Your task to perform on an android device: Clear the cart on costco. Add usb-c to usb-a to the cart on costco Image 0: 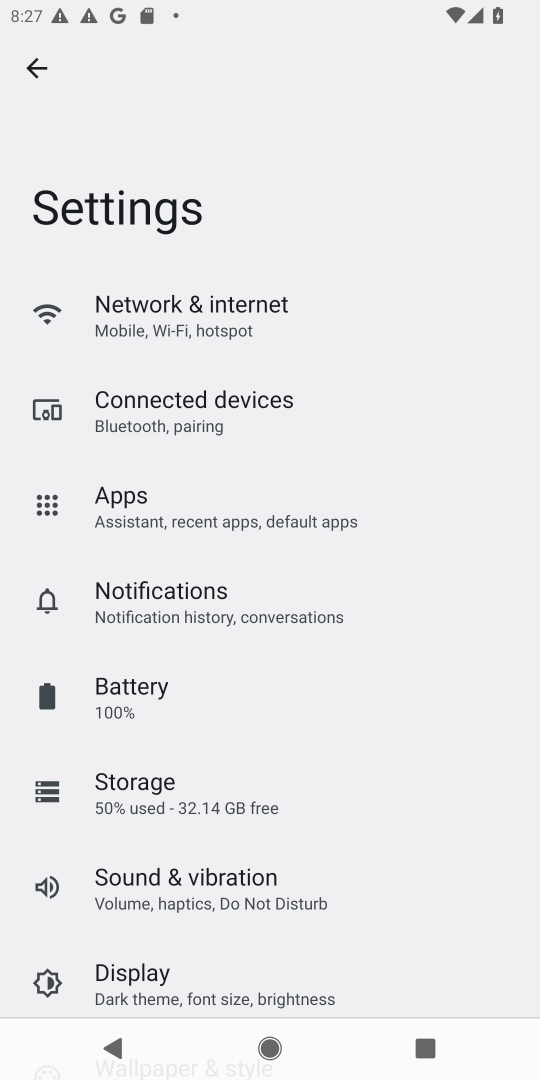
Step 0: press home button
Your task to perform on an android device: Clear the cart on costco. Add usb-c to usb-a to the cart on costco Image 1: 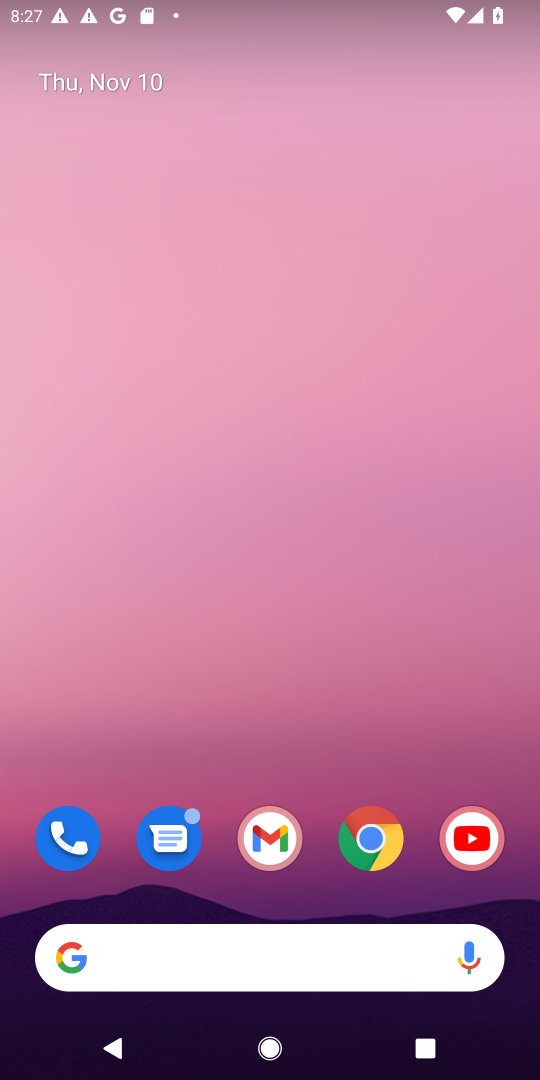
Step 1: drag from (318, 902) to (387, 24)
Your task to perform on an android device: Clear the cart on costco. Add usb-c to usb-a to the cart on costco Image 2: 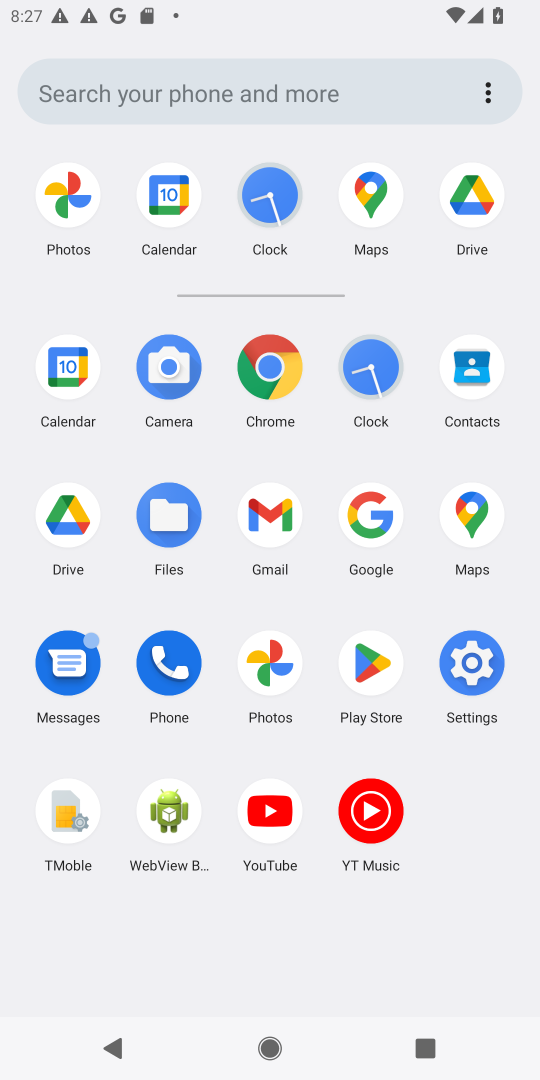
Step 2: click (270, 368)
Your task to perform on an android device: Clear the cart on costco. Add usb-c to usb-a to the cart on costco Image 3: 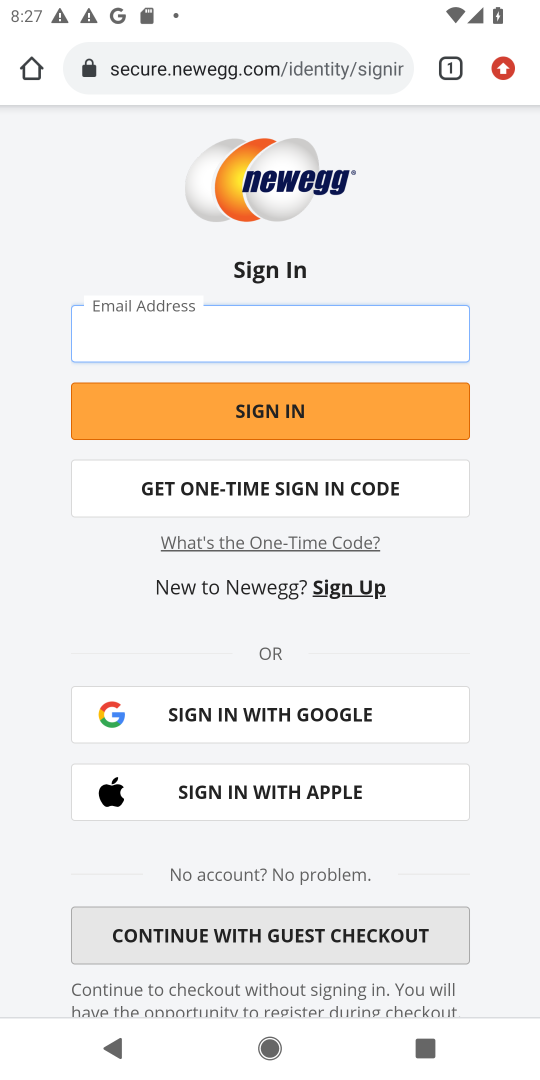
Step 3: click (321, 66)
Your task to perform on an android device: Clear the cart on costco. Add usb-c to usb-a to the cart on costco Image 4: 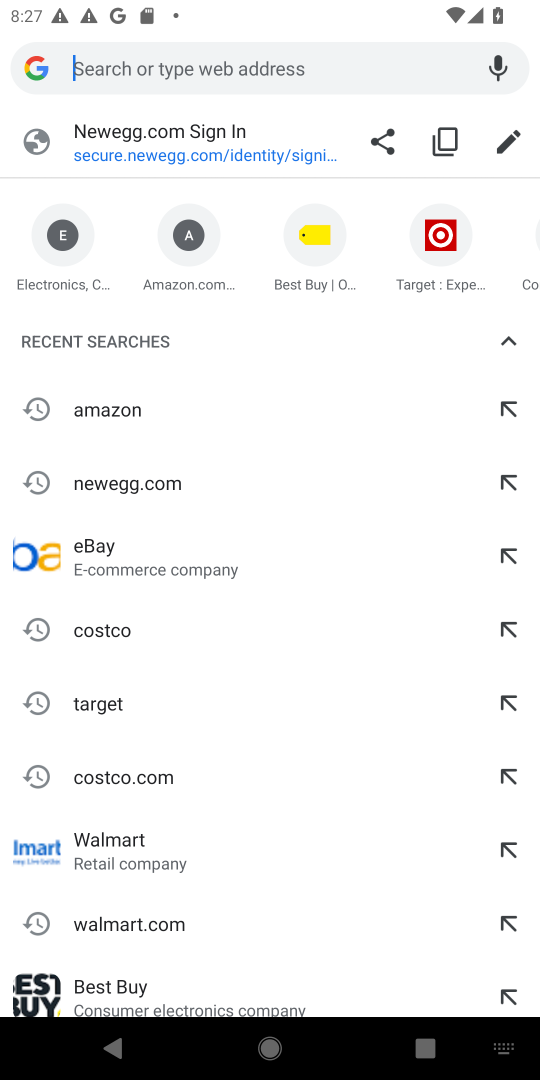
Step 4: type "costco.com"
Your task to perform on an android device: Clear the cart on costco. Add usb-c to usb-a to the cart on costco Image 5: 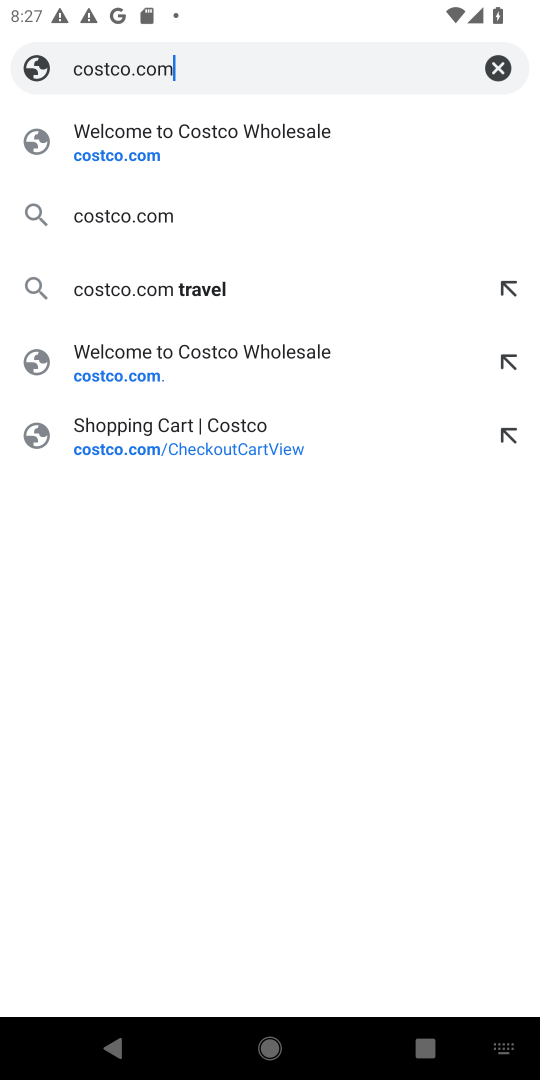
Step 5: press enter
Your task to perform on an android device: Clear the cart on costco. Add usb-c to usb-a to the cart on costco Image 6: 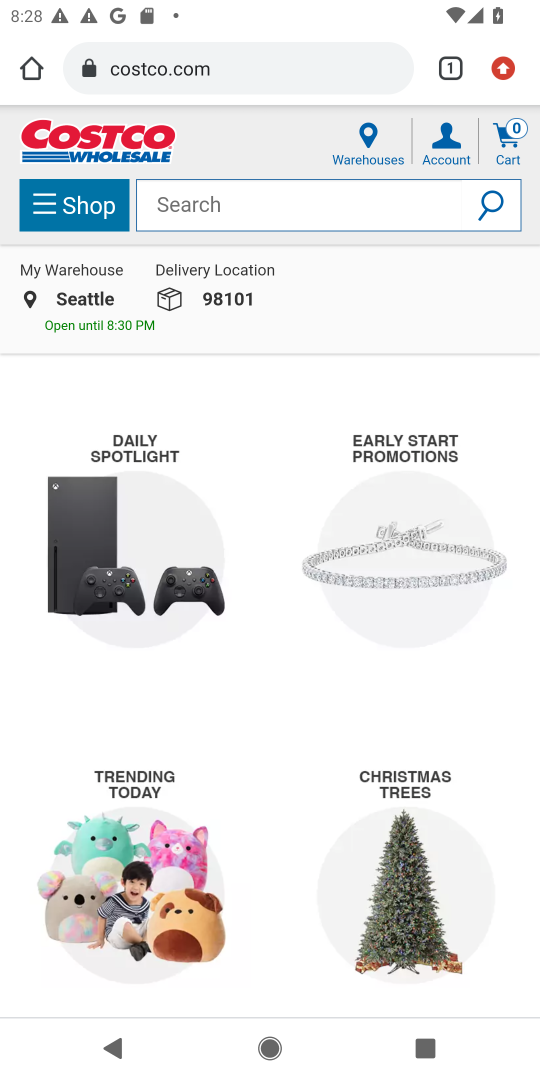
Step 6: click (501, 138)
Your task to perform on an android device: Clear the cart on costco. Add usb-c to usb-a to the cart on costco Image 7: 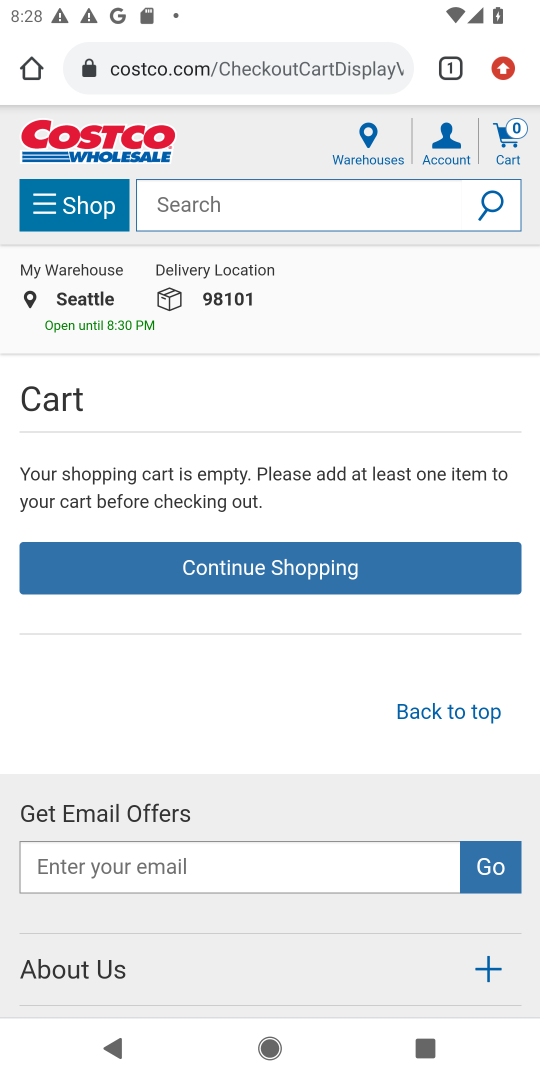
Step 7: click (274, 207)
Your task to perform on an android device: Clear the cart on costco. Add usb-c to usb-a to the cart on costco Image 8: 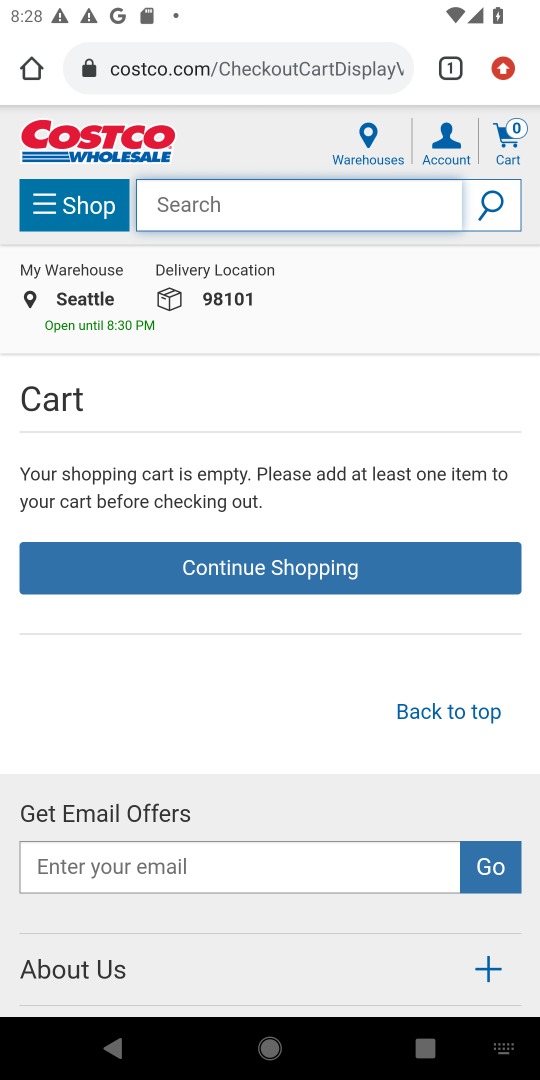
Step 8: type "usb-c to usb-a"
Your task to perform on an android device: Clear the cart on costco. Add usb-c to usb-a to the cart on costco Image 9: 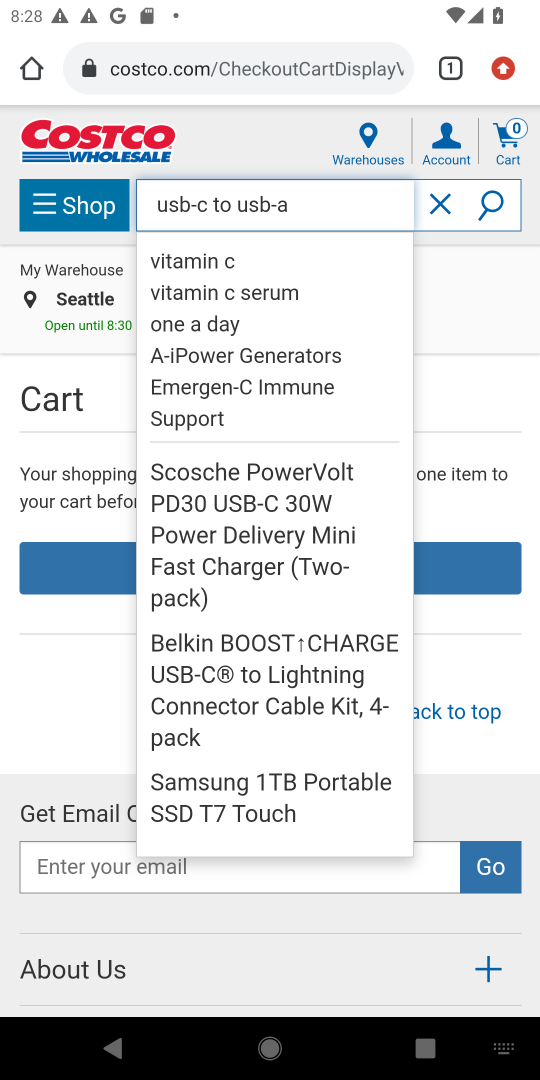
Step 9: press enter
Your task to perform on an android device: Clear the cart on costco. Add usb-c to usb-a to the cart on costco Image 10: 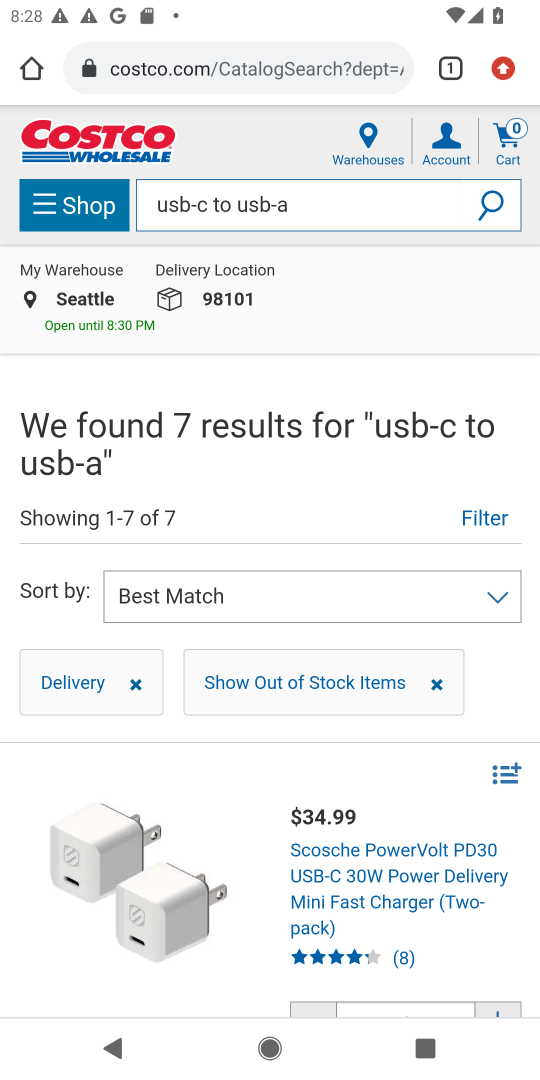
Step 10: drag from (415, 794) to (448, 248)
Your task to perform on an android device: Clear the cart on costco. Add usb-c to usb-a to the cart on costco Image 11: 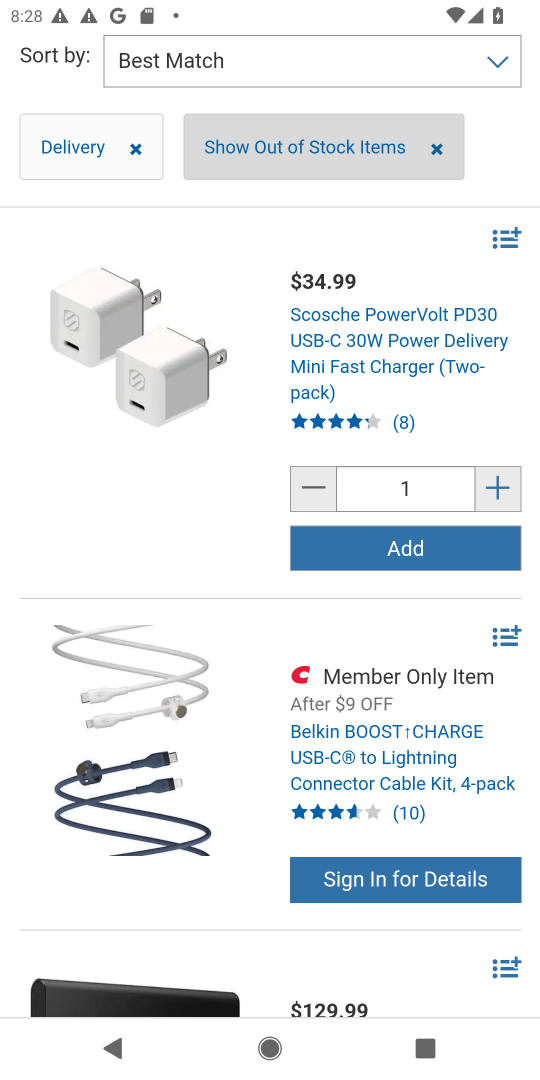
Step 11: drag from (256, 275) to (201, 181)
Your task to perform on an android device: Clear the cart on costco. Add usb-c to usb-a to the cart on costco Image 12: 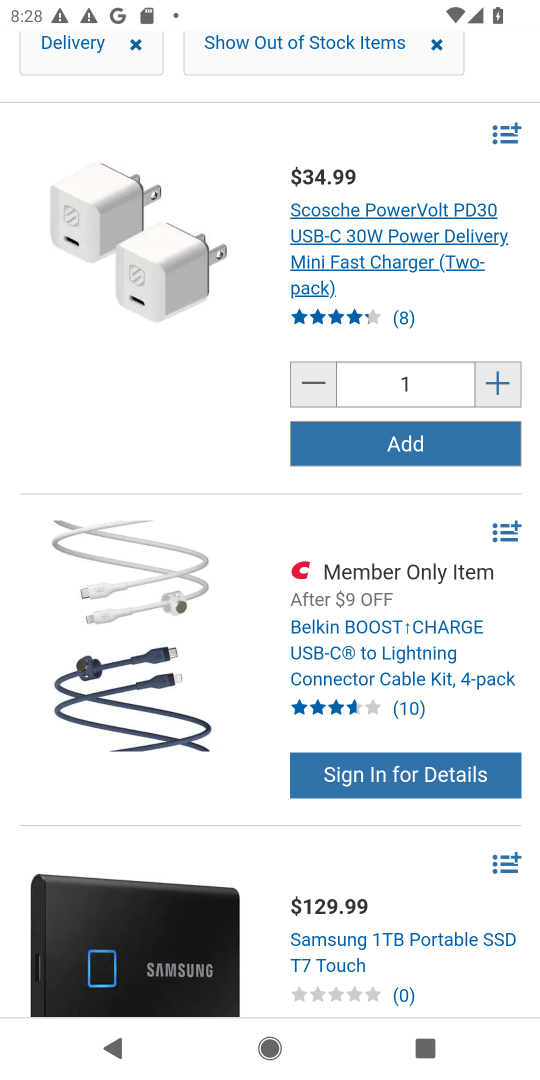
Step 12: drag from (171, 867) to (210, 789)
Your task to perform on an android device: Clear the cart on costco. Add usb-c to usb-a to the cart on costco Image 13: 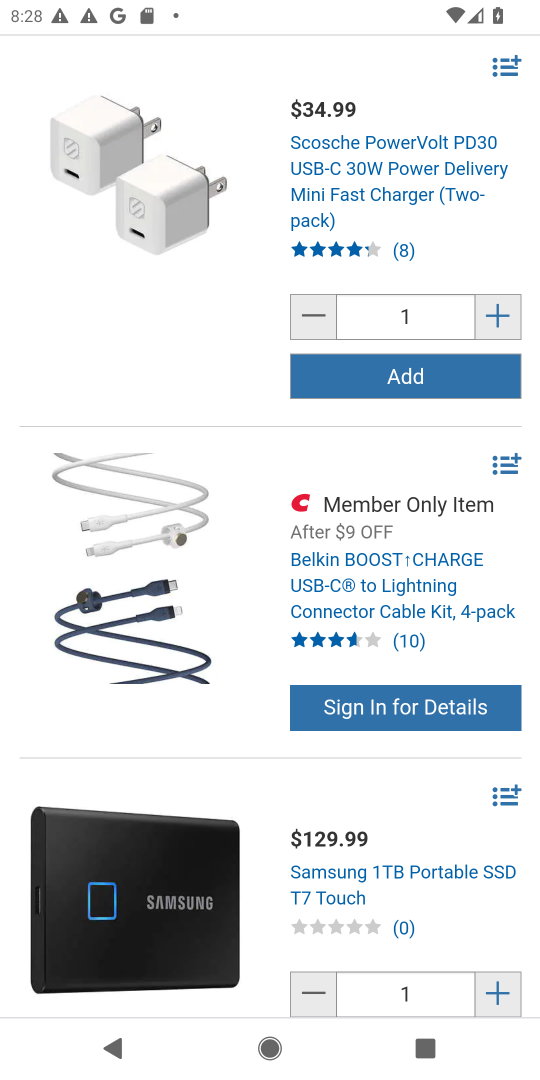
Step 13: click (362, 568)
Your task to perform on an android device: Clear the cart on costco. Add usb-c to usb-a to the cart on costco Image 14: 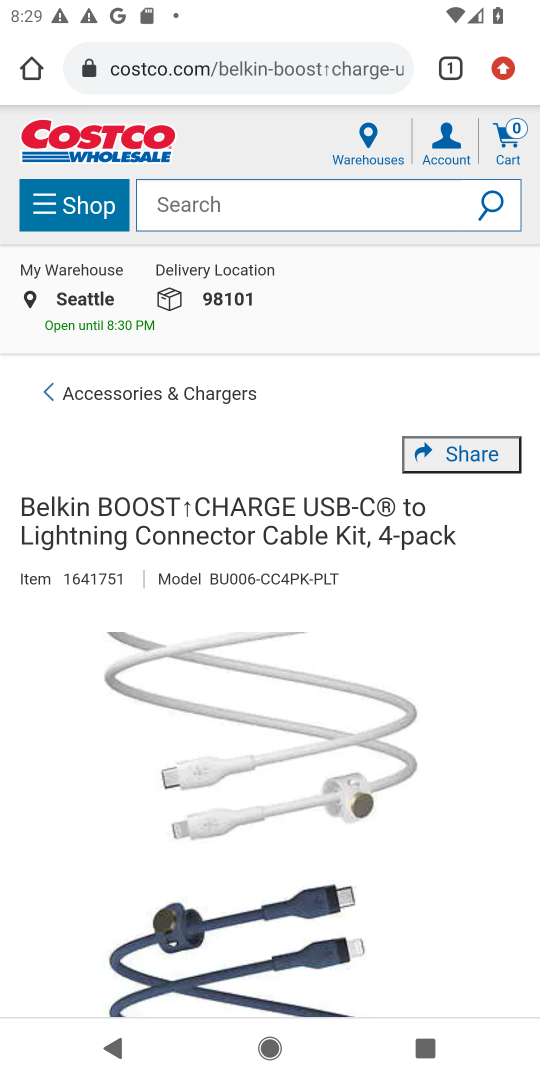
Step 14: task complete